Your task to perform on an android device: Open Chrome and go to the settings page Image 0: 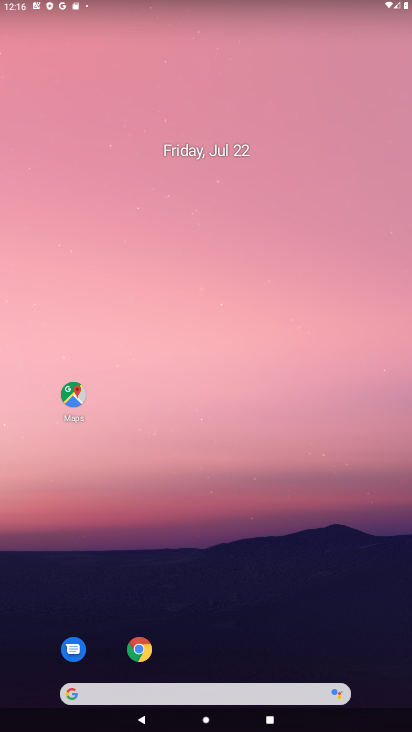
Step 0: drag from (233, 728) to (227, 95)
Your task to perform on an android device: Open Chrome and go to the settings page Image 1: 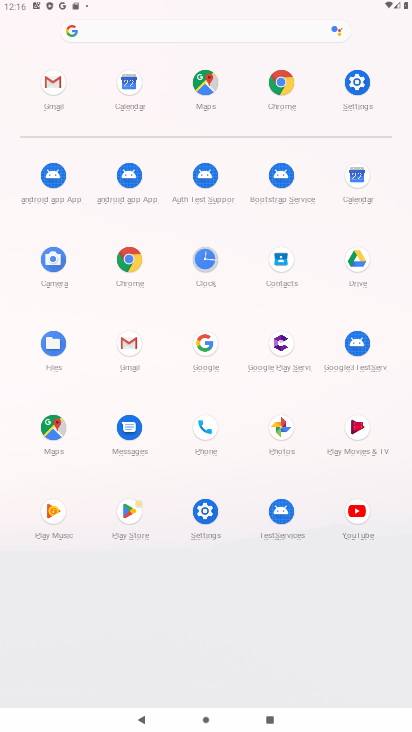
Step 1: click (282, 78)
Your task to perform on an android device: Open Chrome and go to the settings page Image 2: 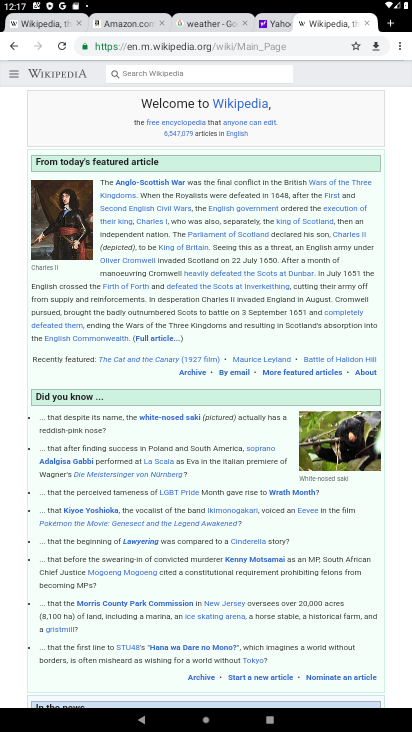
Step 2: click (399, 51)
Your task to perform on an android device: Open Chrome and go to the settings page Image 3: 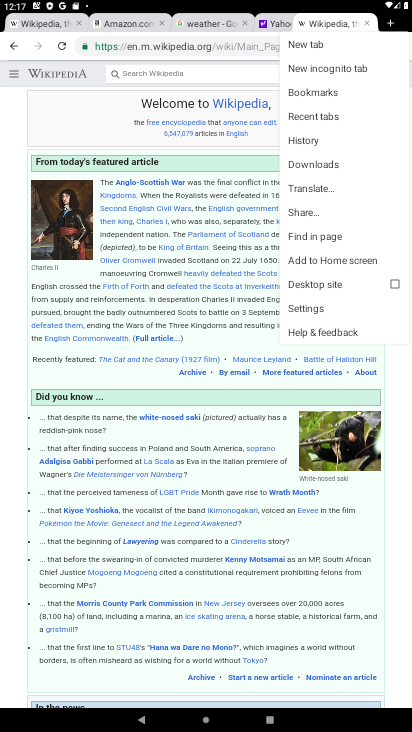
Step 3: click (310, 305)
Your task to perform on an android device: Open Chrome and go to the settings page Image 4: 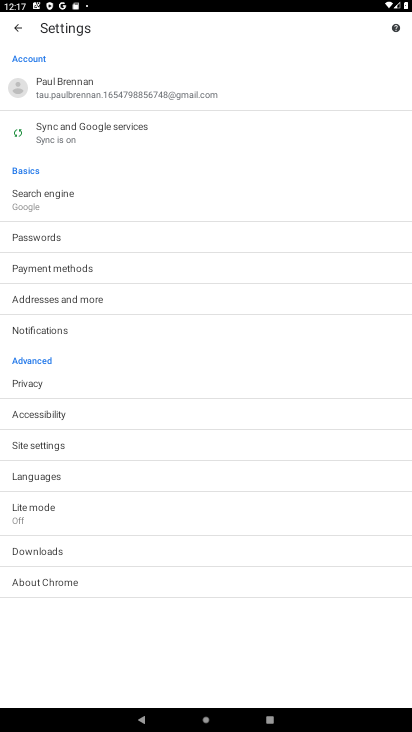
Step 4: click (41, 446)
Your task to perform on an android device: Open Chrome and go to the settings page Image 5: 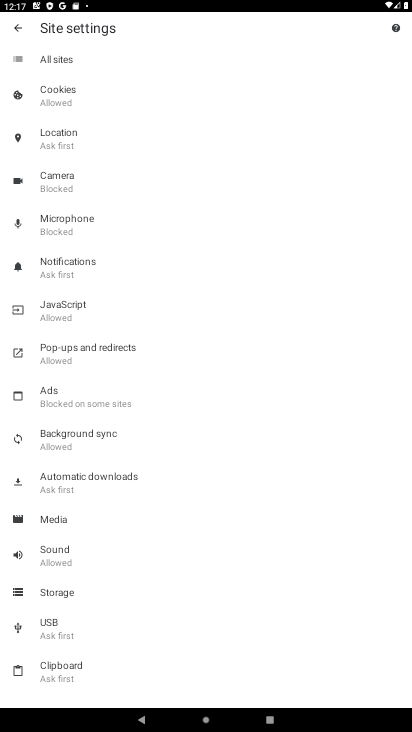
Step 5: task complete